Your task to perform on an android device: Open the Play Movies app and select the watchlist tab. Image 0: 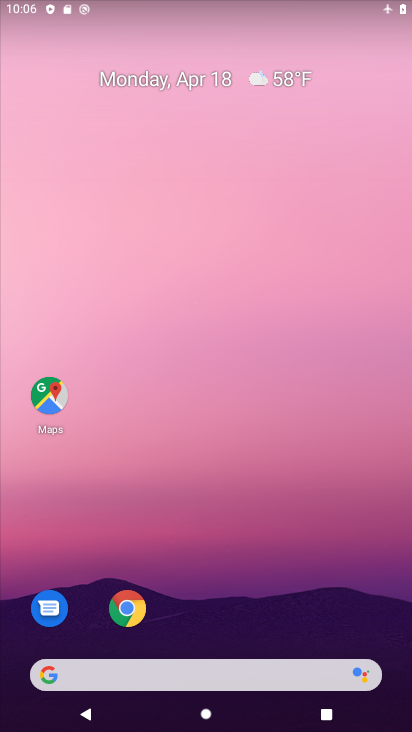
Step 0: drag from (283, 602) to (264, 192)
Your task to perform on an android device: Open the Play Movies app and select the watchlist tab. Image 1: 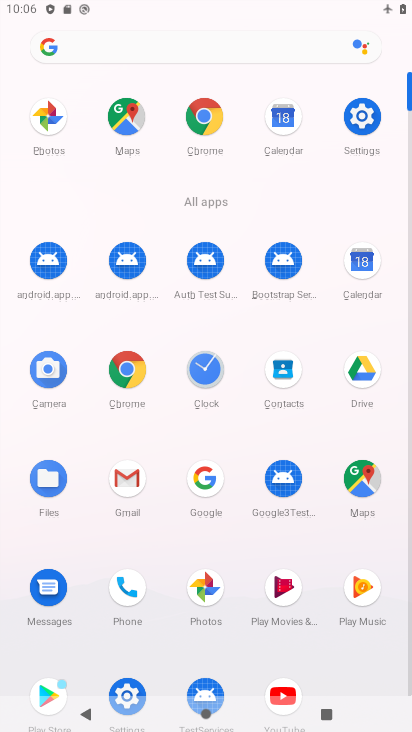
Step 1: click (296, 593)
Your task to perform on an android device: Open the Play Movies app and select the watchlist tab. Image 2: 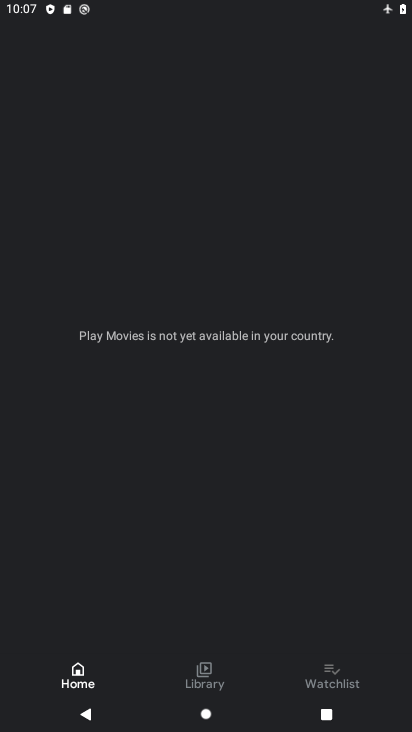
Step 2: click (325, 682)
Your task to perform on an android device: Open the Play Movies app and select the watchlist tab. Image 3: 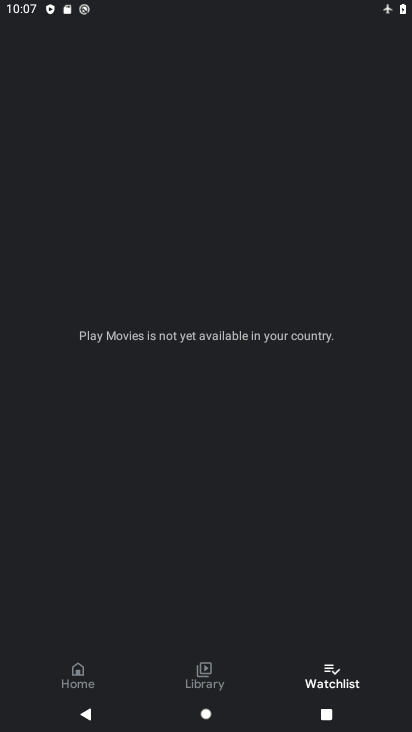
Step 3: task complete